Your task to perform on an android device: turn on data saver in the chrome app Image 0: 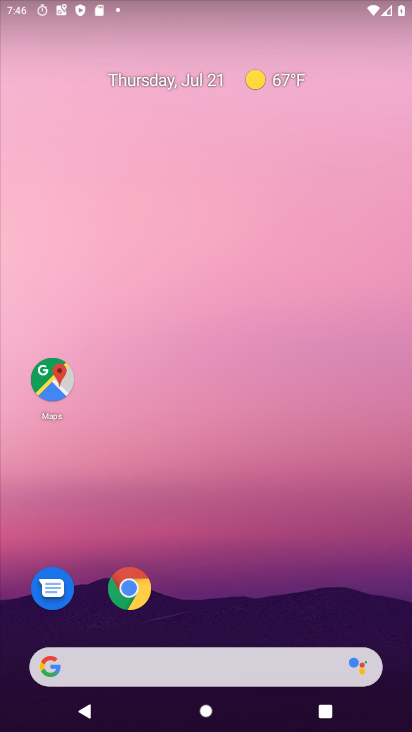
Step 0: click (134, 589)
Your task to perform on an android device: turn on data saver in the chrome app Image 1: 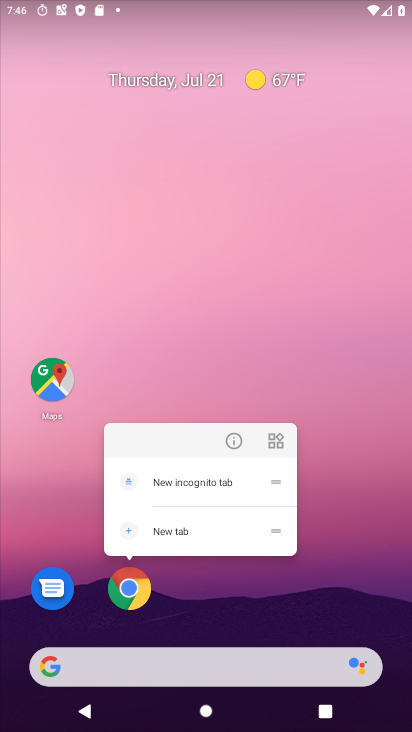
Step 1: click (134, 589)
Your task to perform on an android device: turn on data saver in the chrome app Image 2: 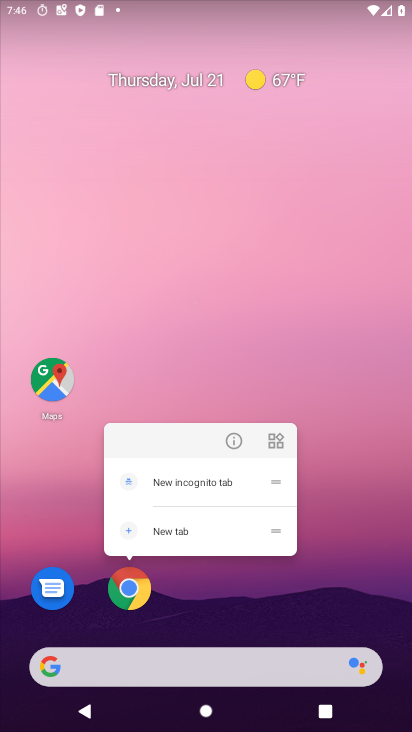
Step 2: click (134, 589)
Your task to perform on an android device: turn on data saver in the chrome app Image 3: 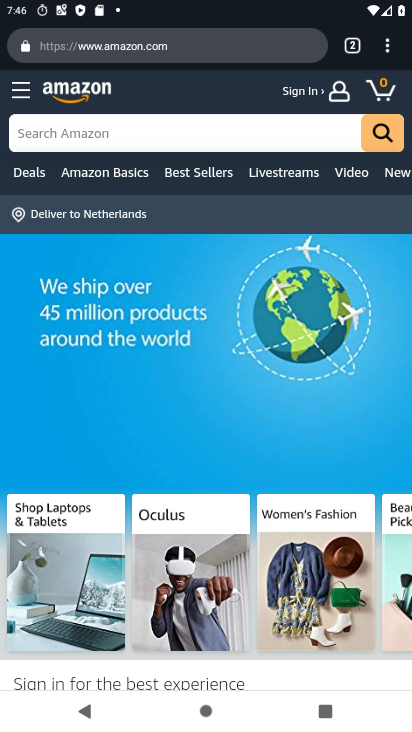
Step 3: click (385, 51)
Your task to perform on an android device: turn on data saver in the chrome app Image 4: 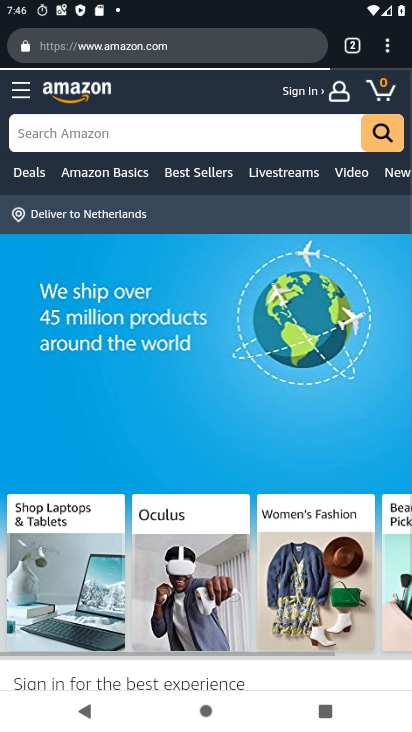
Step 4: click (389, 55)
Your task to perform on an android device: turn on data saver in the chrome app Image 5: 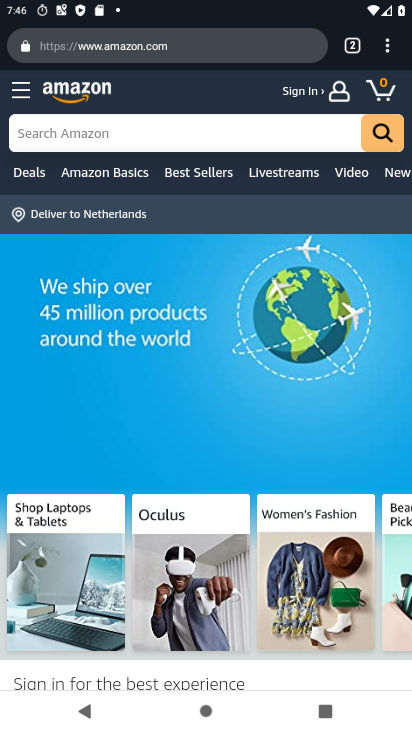
Step 5: click (389, 55)
Your task to perform on an android device: turn on data saver in the chrome app Image 6: 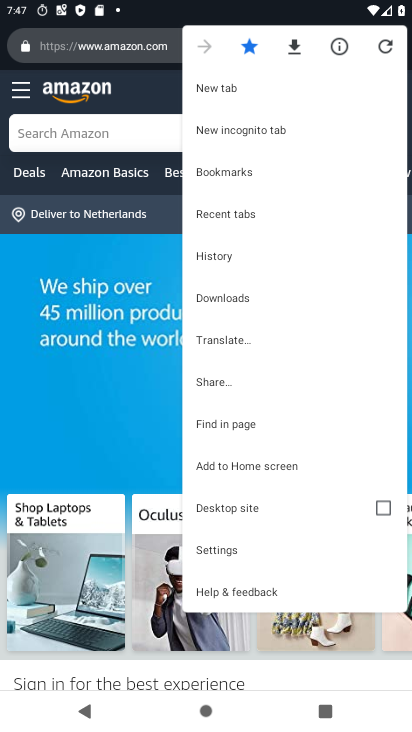
Step 6: click (255, 542)
Your task to perform on an android device: turn on data saver in the chrome app Image 7: 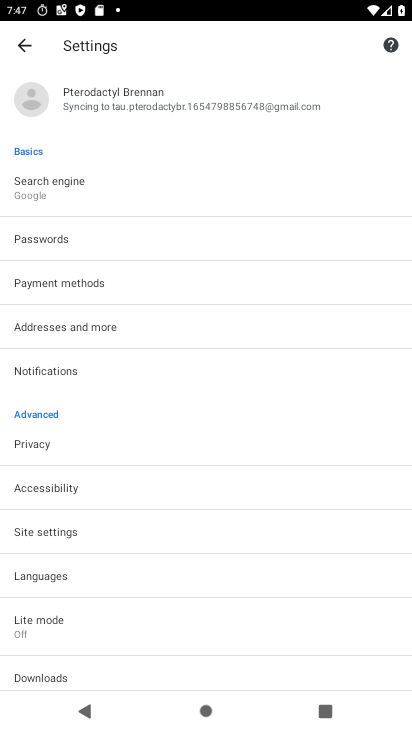
Step 7: click (101, 626)
Your task to perform on an android device: turn on data saver in the chrome app Image 8: 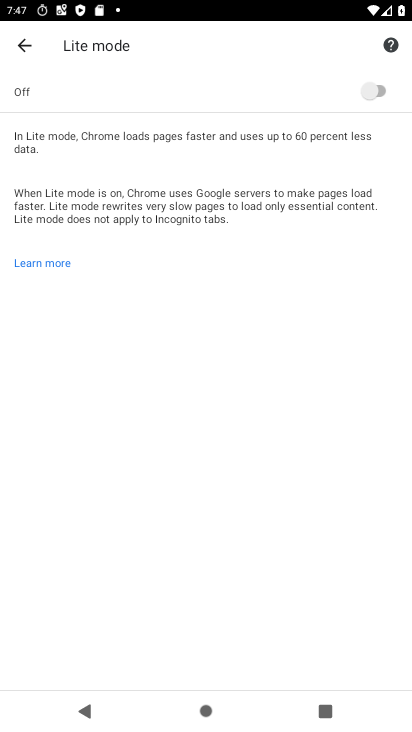
Step 8: click (388, 95)
Your task to perform on an android device: turn on data saver in the chrome app Image 9: 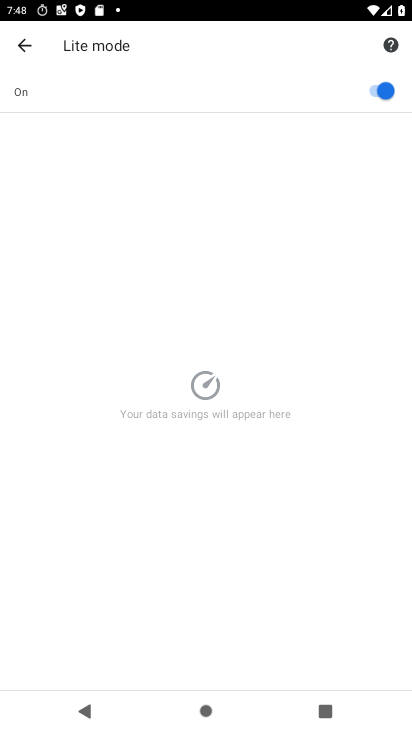
Step 9: task complete